Your task to perform on an android device: What's a good restaurant near me? Image 0: 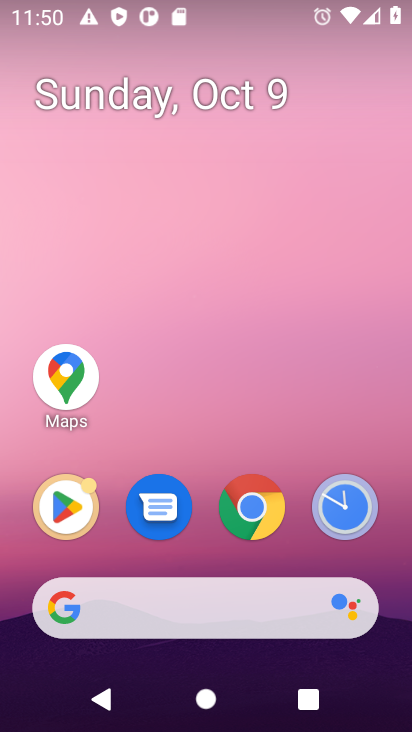
Step 0: press home button
Your task to perform on an android device: What's a good restaurant near me? Image 1: 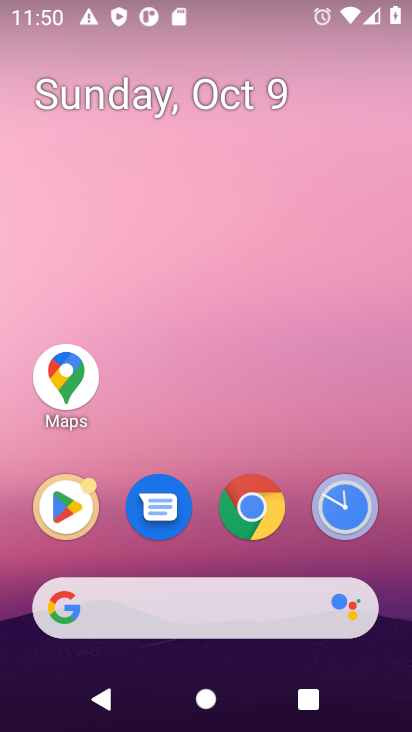
Step 1: click (252, 622)
Your task to perform on an android device: What's a good restaurant near me? Image 2: 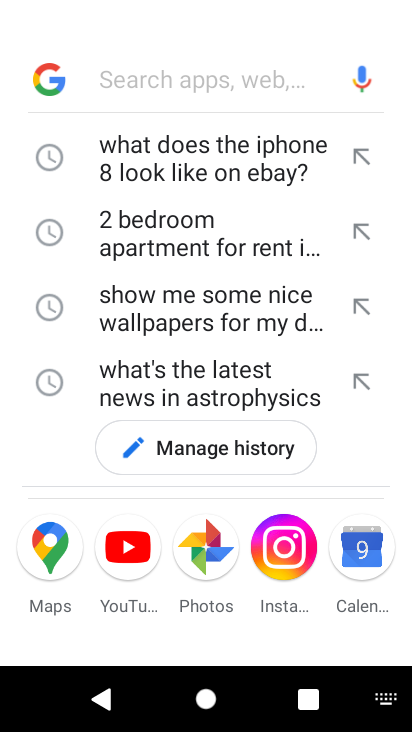
Step 2: type "What's a good restaurant near me"
Your task to perform on an android device: What's a good restaurant near me? Image 3: 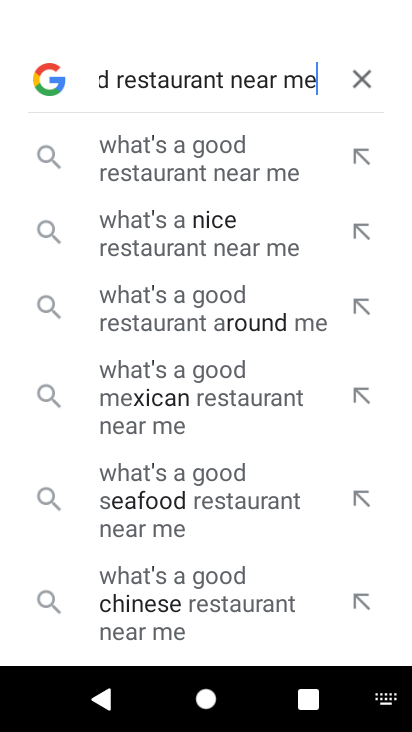
Step 3: press enter
Your task to perform on an android device: What's a good restaurant near me? Image 4: 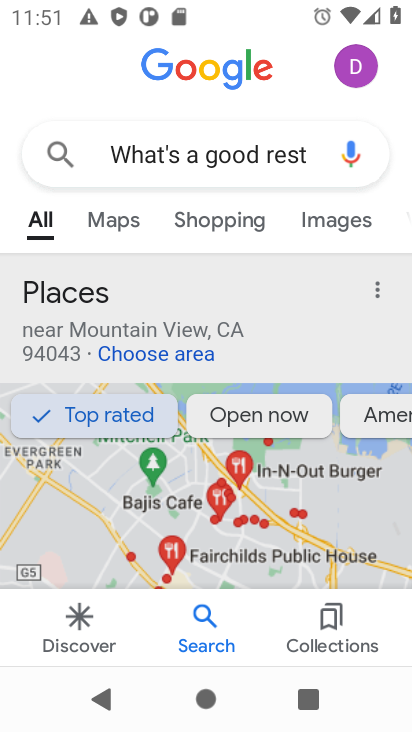
Step 4: task complete